Your task to perform on an android device: Open Chrome and go to settings Image 0: 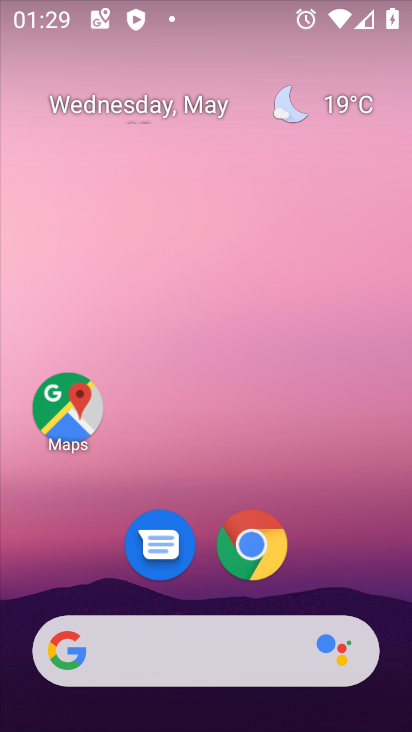
Step 0: click (252, 536)
Your task to perform on an android device: Open Chrome and go to settings Image 1: 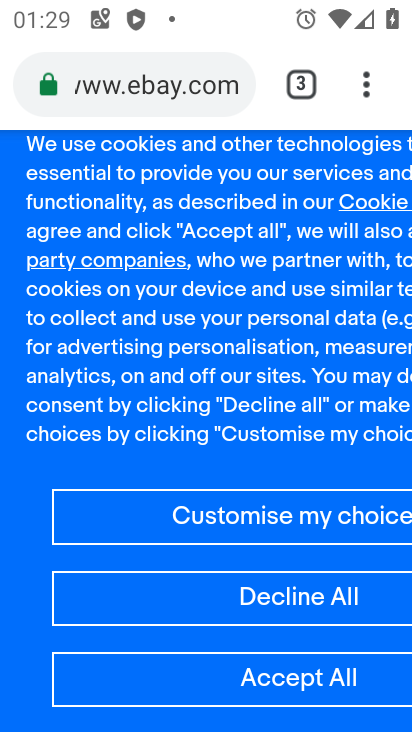
Step 1: task complete